Your task to perform on an android device: open a new tab in the chrome app Image 0: 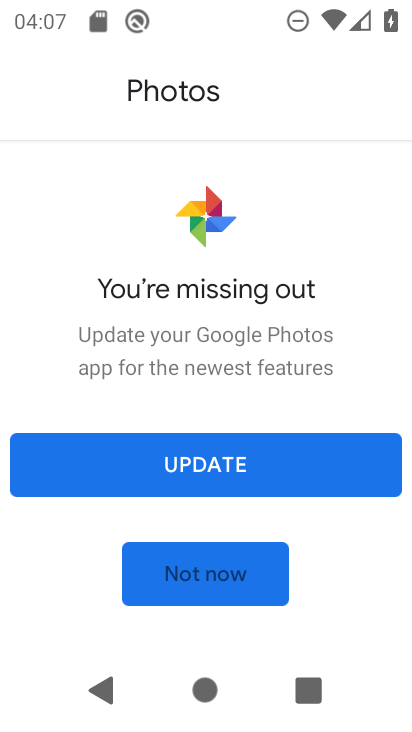
Step 0: press home button
Your task to perform on an android device: open a new tab in the chrome app Image 1: 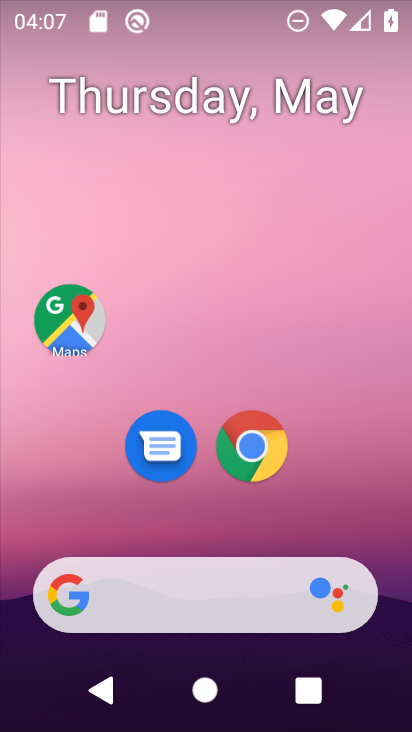
Step 1: click (261, 446)
Your task to perform on an android device: open a new tab in the chrome app Image 2: 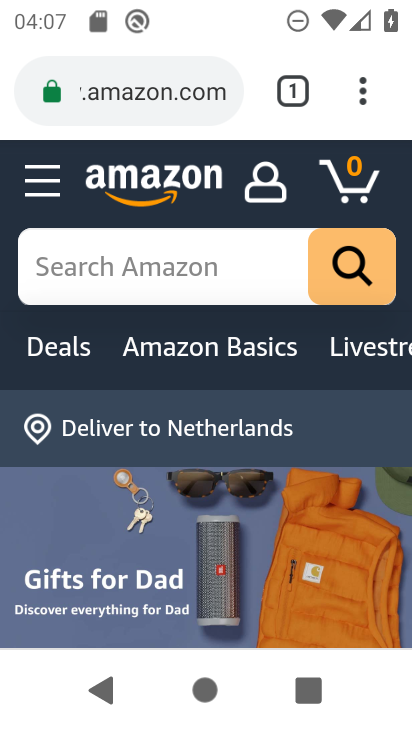
Step 2: click (364, 92)
Your task to perform on an android device: open a new tab in the chrome app Image 3: 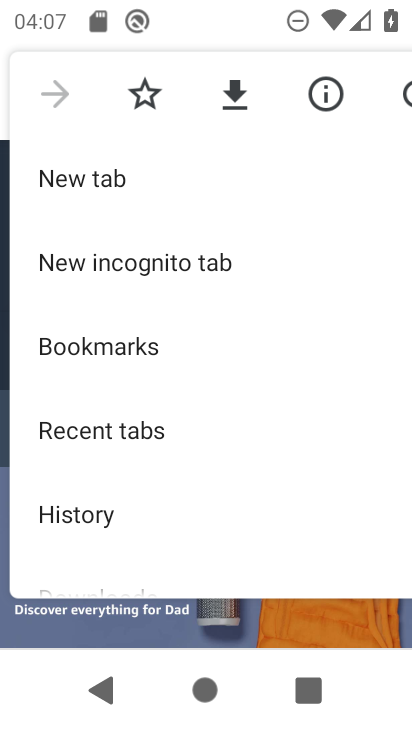
Step 3: click (94, 180)
Your task to perform on an android device: open a new tab in the chrome app Image 4: 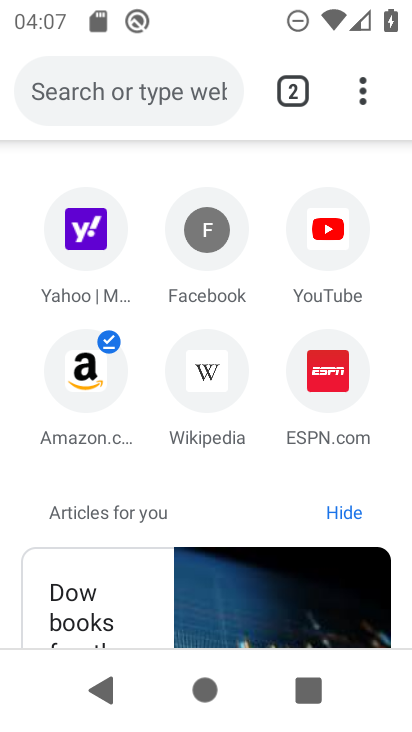
Step 4: task complete